Your task to perform on an android device: turn off airplane mode Image 0: 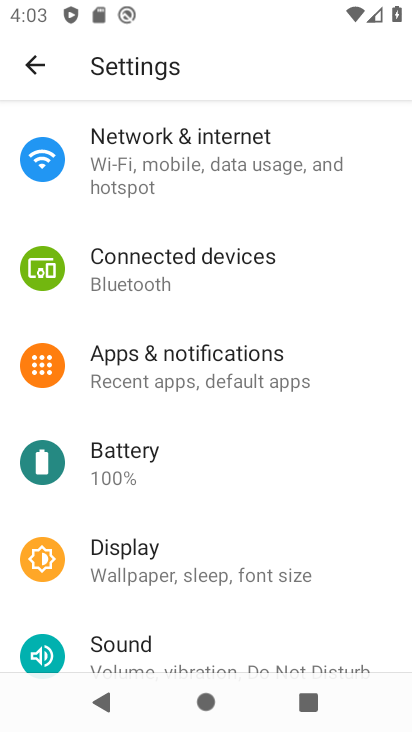
Step 0: press home button
Your task to perform on an android device: turn off airplane mode Image 1: 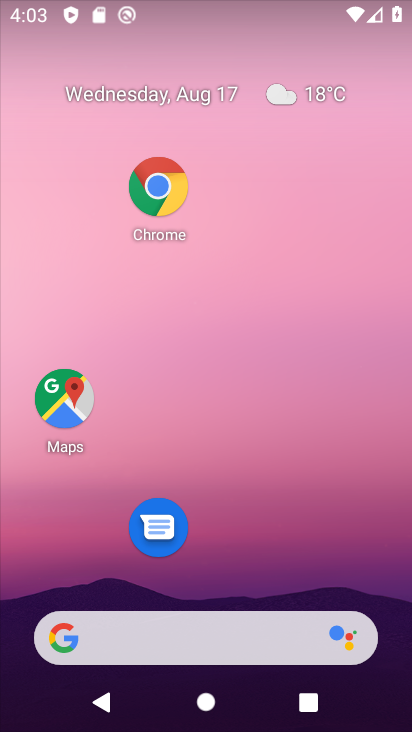
Step 1: task complete